Your task to perform on an android device: check google app version Image 0: 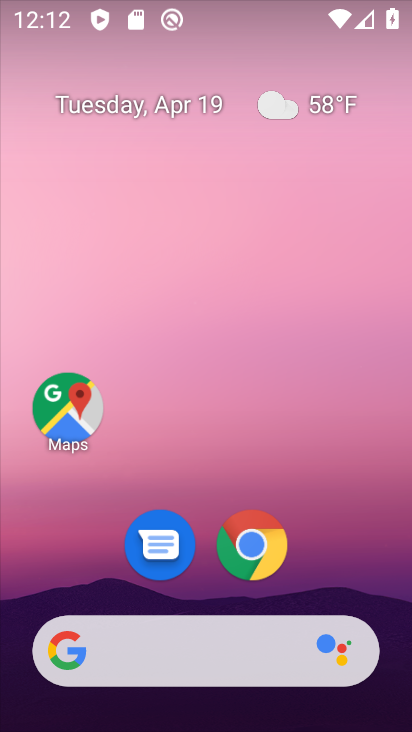
Step 0: click (277, 6)
Your task to perform on an android device: check google app version Image 1: 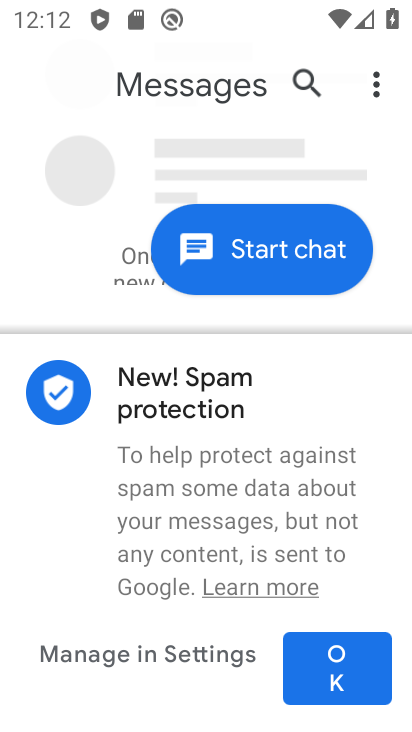
Step 1: press home button
Your task to perform on an android device: check google app version Image 2: 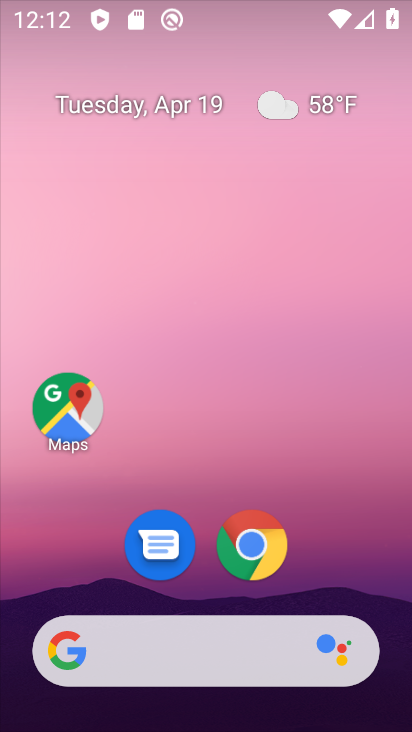
Step 2: drag from (205, 395) to (211, 27)
Your task to perform on an android device: check google app version Image 3: 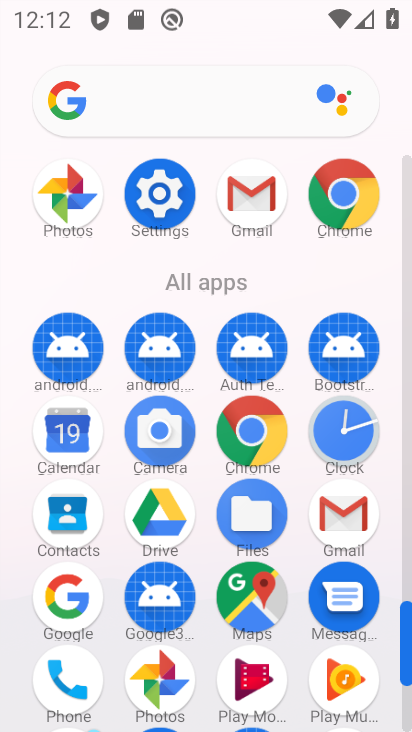
Step 3: click (78, 606)
Your task to perform on an android device: check google app version Image 4: 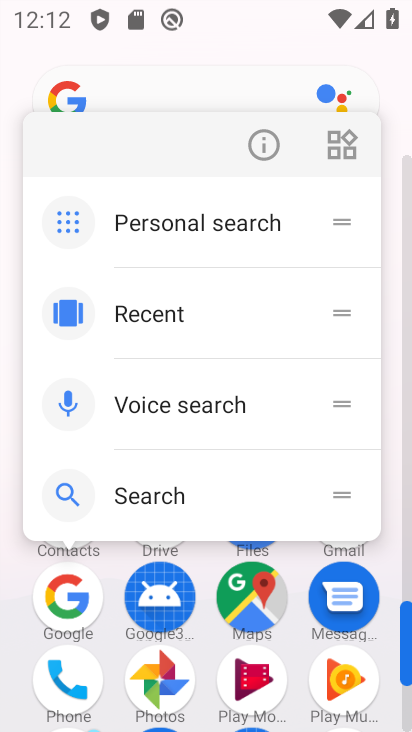
Step 4: click (268, 147)
Your task to perform on an android device: check google app version Image 5: 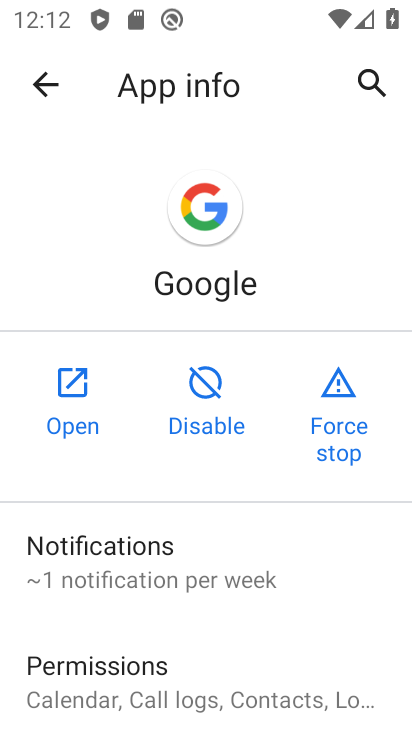
Step 5: drag from (146, 668) to (309, 22)
Your task to perform on an android device: check google app version Image 6: 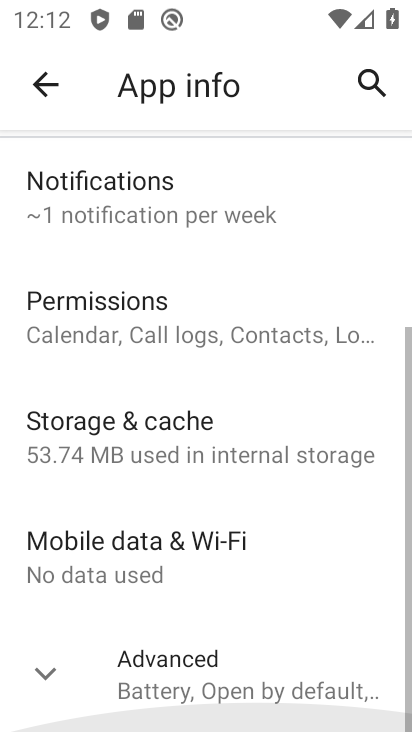
Step 6: drag from (196, 617) to (305, 46)
Your task to perform on an android device: check google app version Image 7: 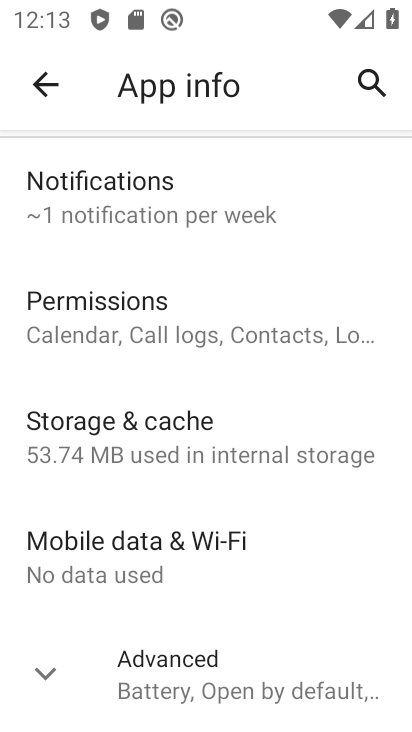
Step 7: drag from (218, 635) to (316, 84)
Your task to perform on an android device: check google app version Image 8: 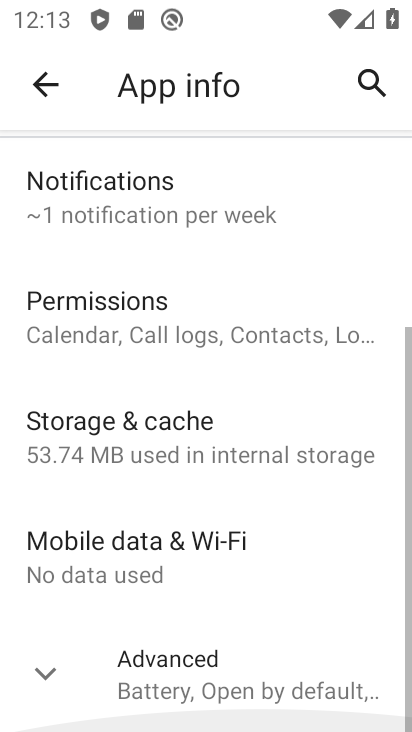
Step 8: drag from (195, 660) to (330, 68)
Your task to perform on an android device: check google app version Image 9: 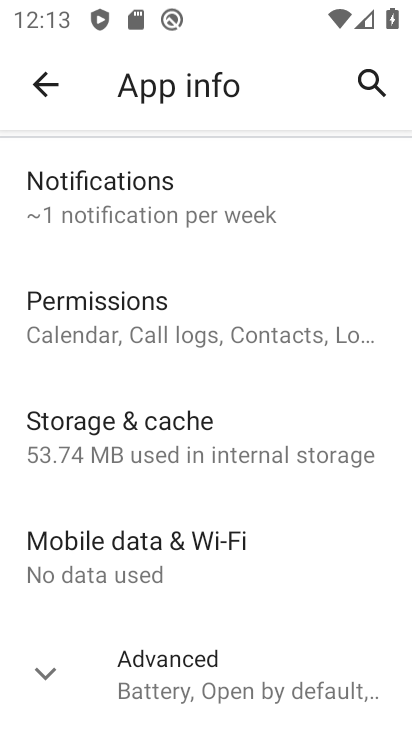
Step 9: drag from (220, 576) to (319, 51)
Your task to perform on an android device: check google app version Image 10: 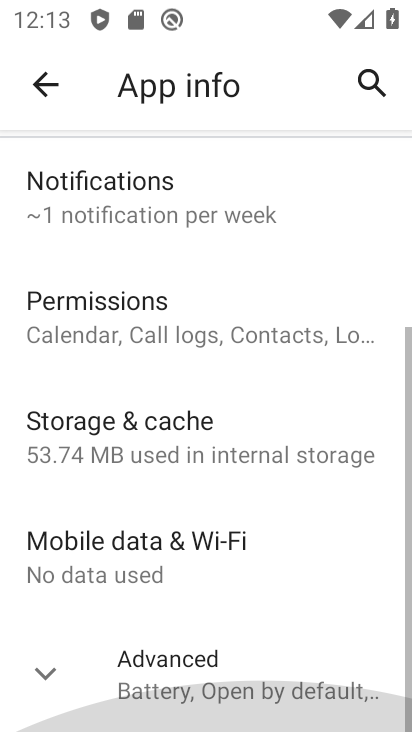
Step 10: drag from (238, 618) to (248, 88)
Your task to perform on an android device: check google app version Image 11: 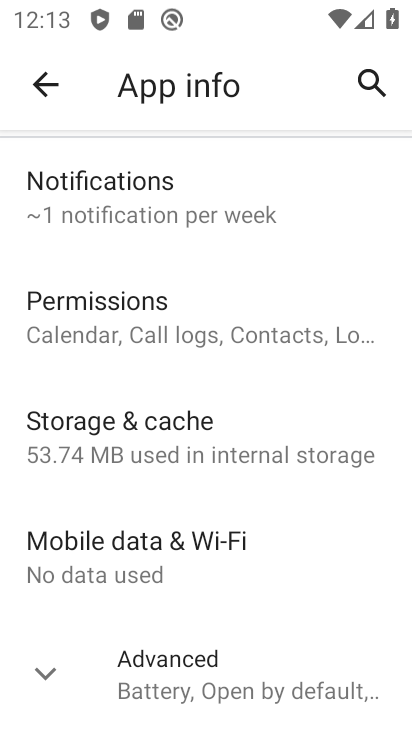
Step 11: click (269, 114)
Your task to perform on an android device: check google app version Image 12: 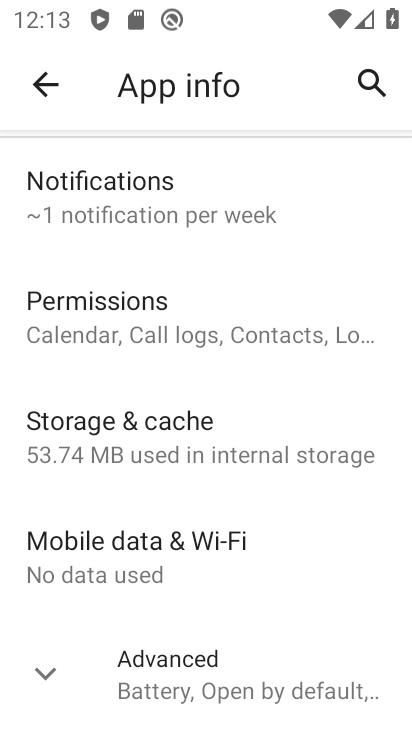
Step 12: drag from (193, 647) to (295, 92)
Your task to perform on an android device: check google app version Image 13: 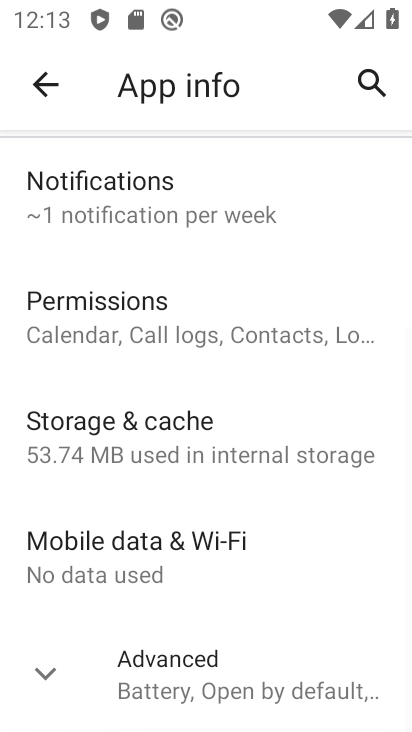
Step 13: click (155, 675)
Your task to perform on an android device: check google app version Image 14: 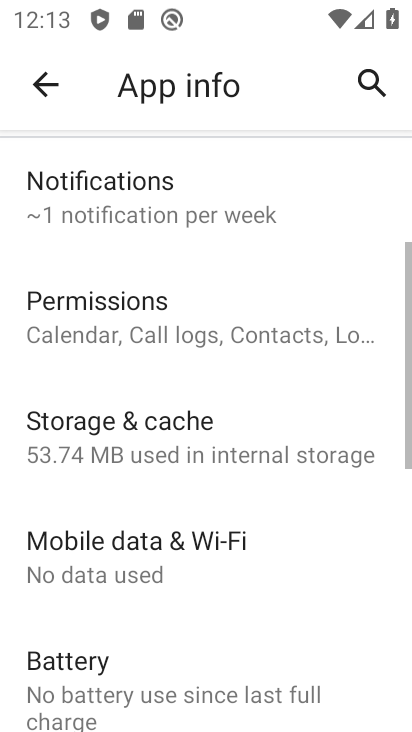
Step 14: task complete